Your task to perform on an android device: change keyboard looks Image 0: 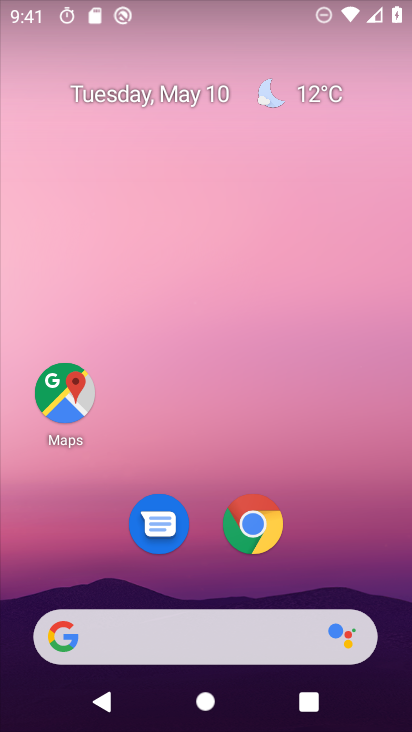
Step 0: drag from (349, 529) to (316, 95)
Your task to perform on an android device: change keyboard looks Image 1: 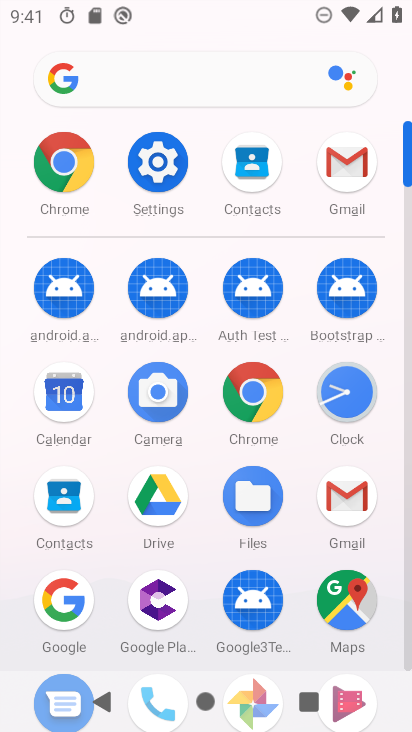
Step 1: click (162, 165)
Your task to perform on an android device: change keyboard looks Image 2: 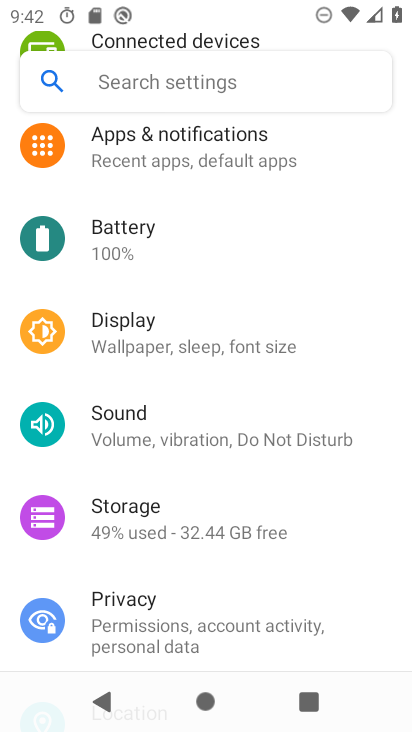
Step 2: drag from (222, 582) to (214, 87)
Your task to perform on an android device: change keyboard looks Image 3: 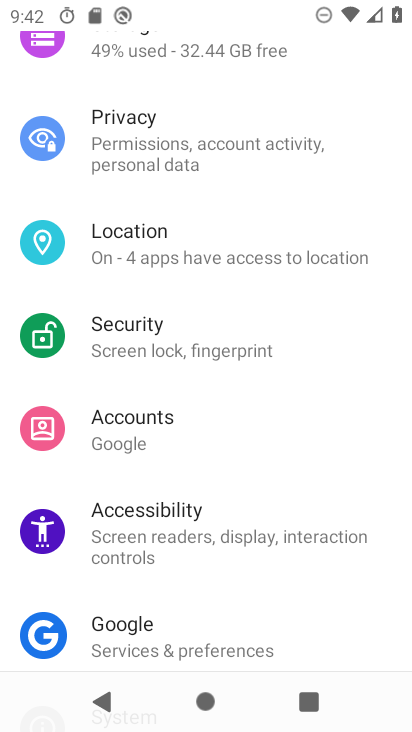
Step 3: drag from (246, 497) to (226, 110)
Your task to perform on an android device: change keyboard looks Image 4: 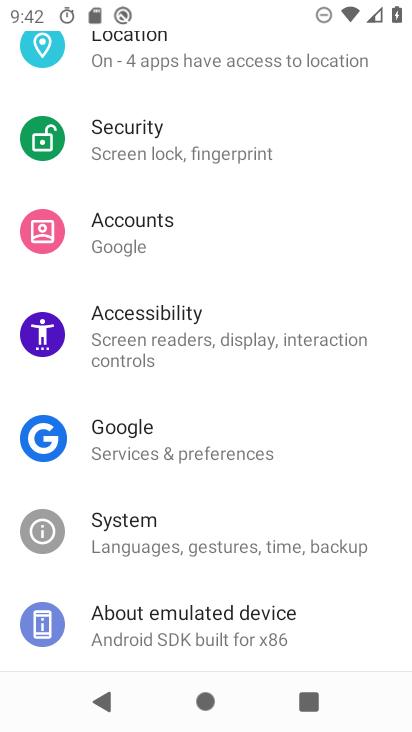
Step 4: click (213, 523)
Your task to perform on an android device: change keyboard looks Image 5: 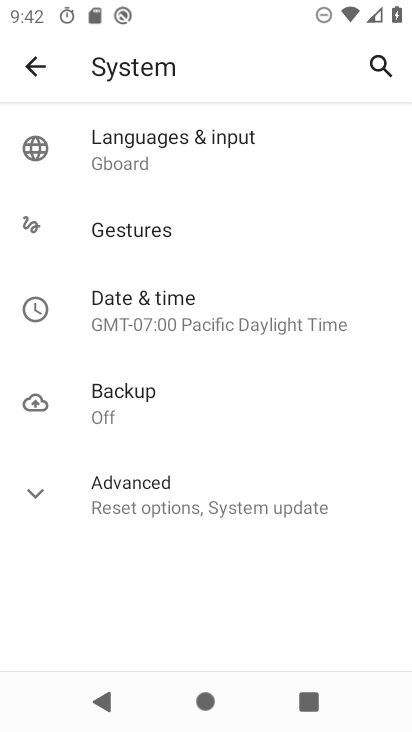
Step 5: click (175, 142)
Your task to perform on an android device: change keyboard looks Image 6: 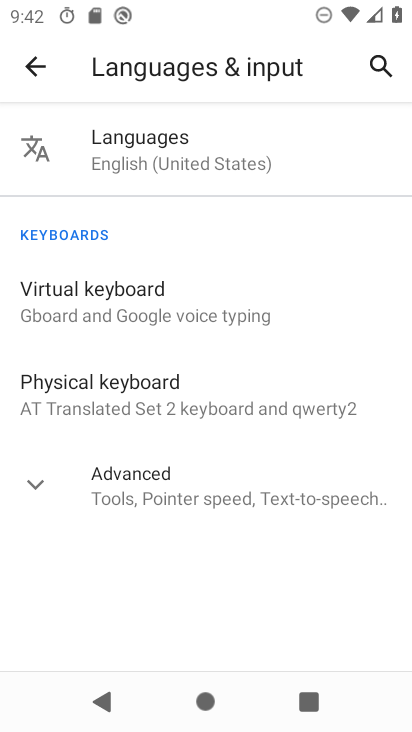
Step 6: click (103, 284)
Your task to perform on an android device: change keyboard looks Image 7: 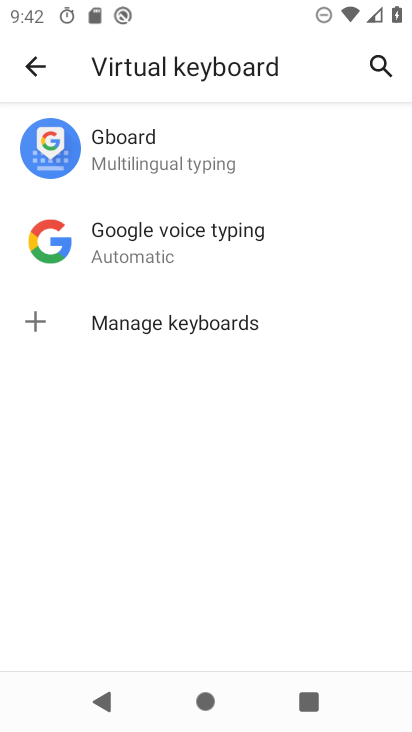
Step 7: click (162, 155)
Your task to perform on an android device: change keyboard looks Image 8: 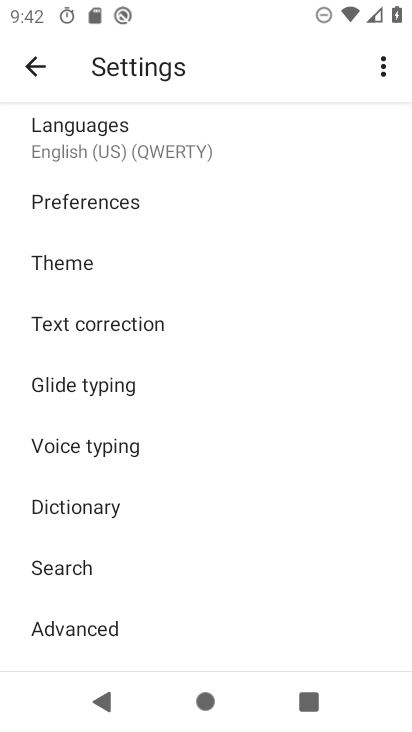
Step 8: click (94, 263)
Your task to perform on an android device: change keyboard looks Image 9: 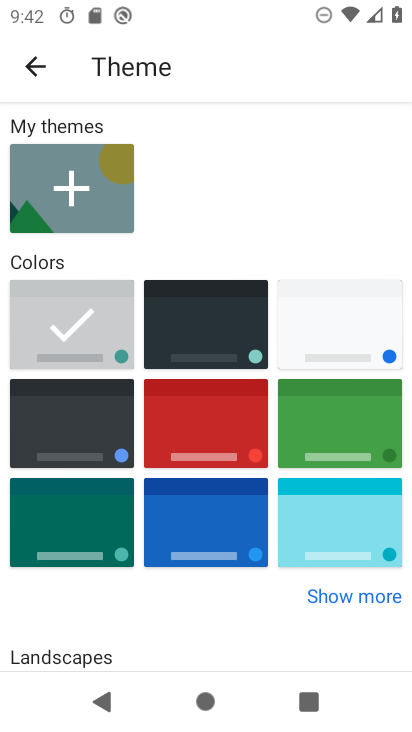
Step 9: click (197, 306)
Your task to perform on an android device: change keyboard looks Image 10: 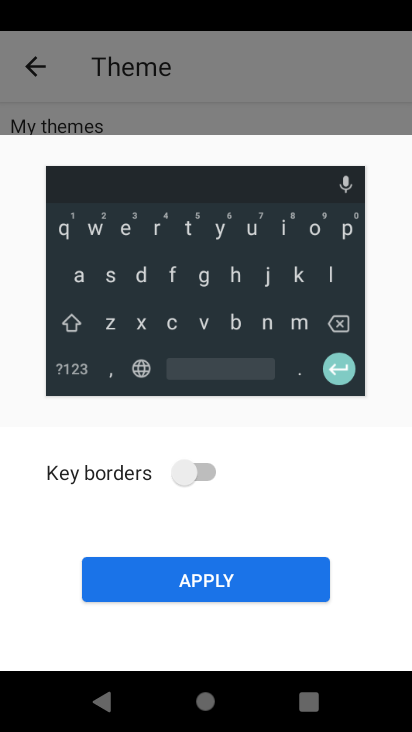
Step 10: click (195, 466)
Your task to perform on an android device: change keyboard looks Image 11: 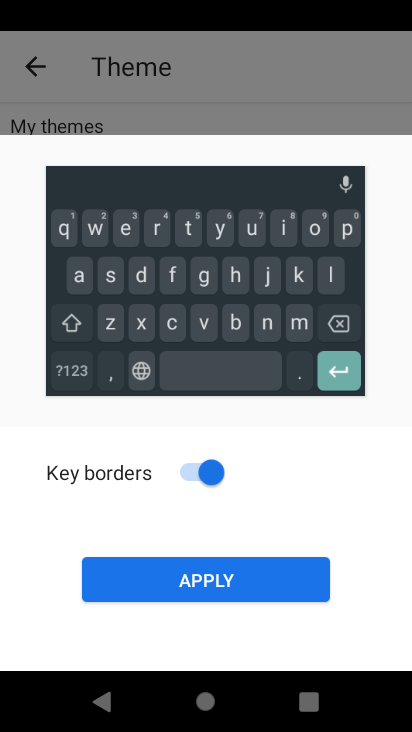
Step 11: click (241, 577)
Your task to perform on an android device: change keyboard looks Image 12: 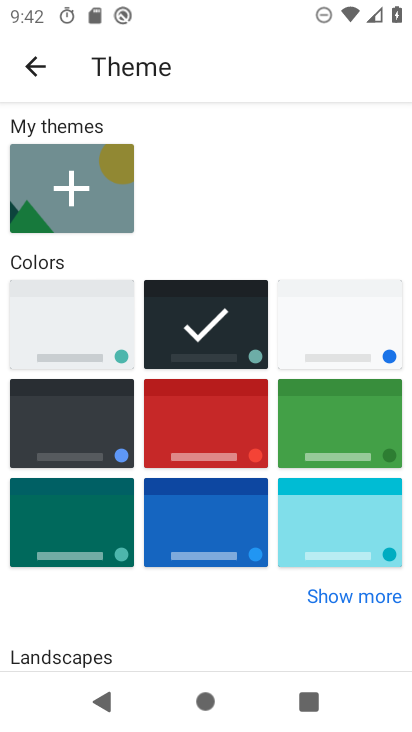
Step 12: task complete